Your task to perform on an android device: turn on priority inbox in the gmail app Image 0: 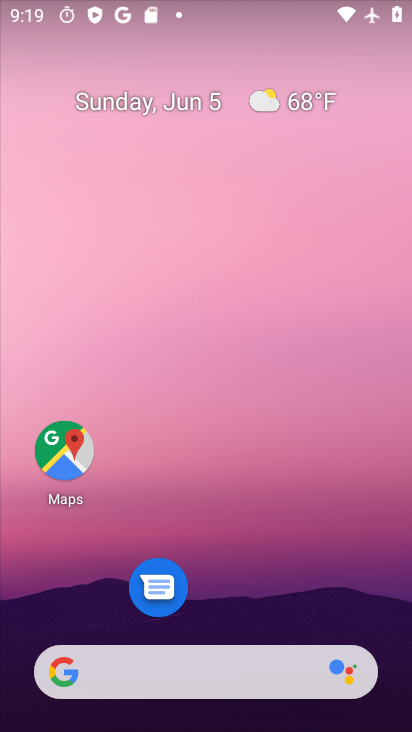
Step 0: drag from (261, 606) to (247, 165)
Your task to perform on an android device: turn on priority inbox in the gmail app Image 1: 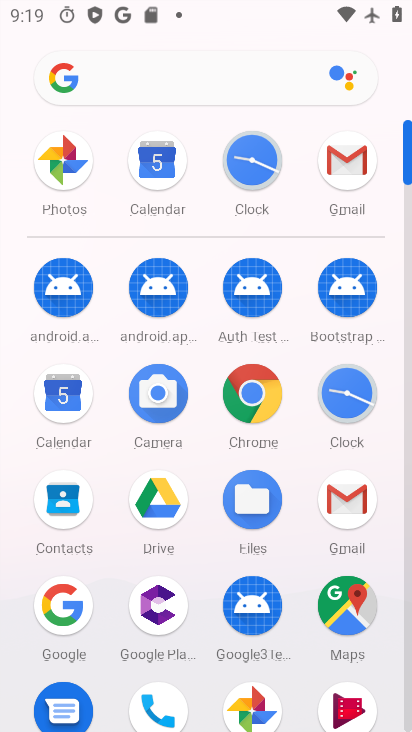
Step 1: click (339, 513)
Your task to perform on an android device: turn on priority inbox in the gmail app Image 2: 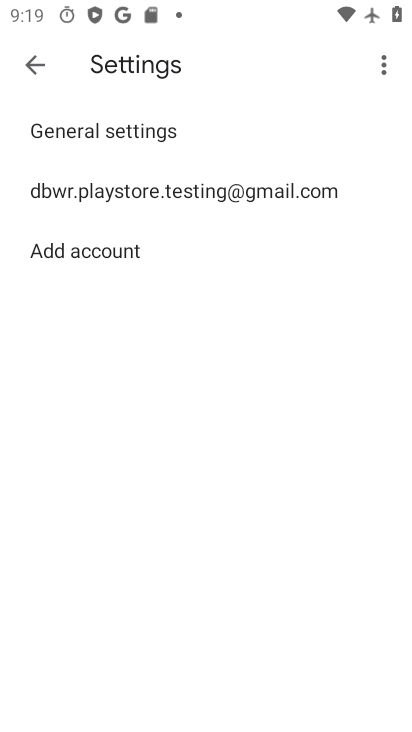
Step 2: click (35, 47)
Your task to perform on an android device: turn on priority inbox in the gmail app Image 3: 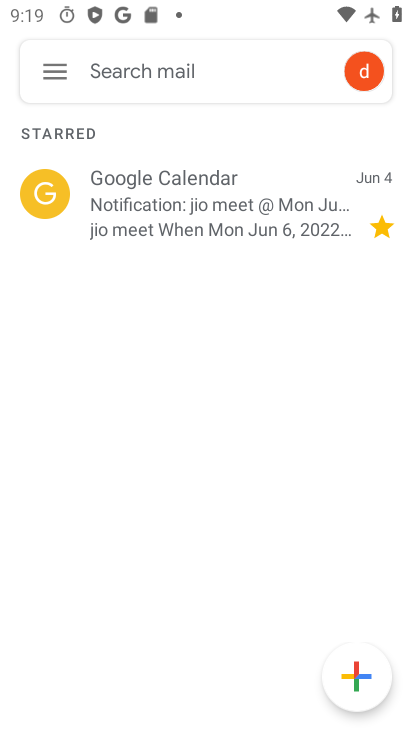
Step 3: click (38, 60)
Your task to perform on an android device: turn on priority inbox in the gmail app Image 4: 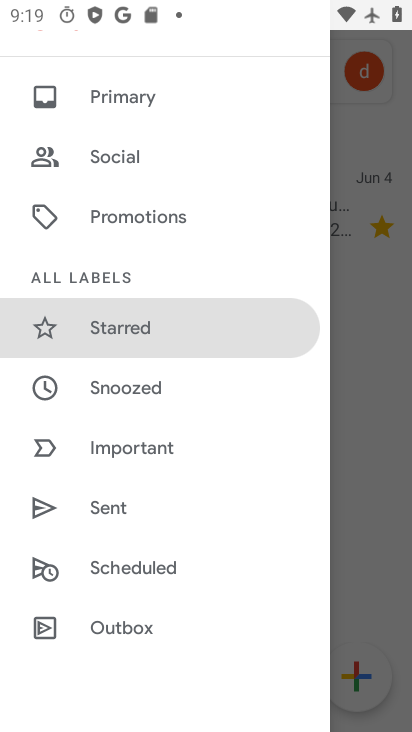
Step 4: drag from (165, 558) to (177, 229)
Your task to perform on an android device: turn on priority inbox in the gmail app Image 5: 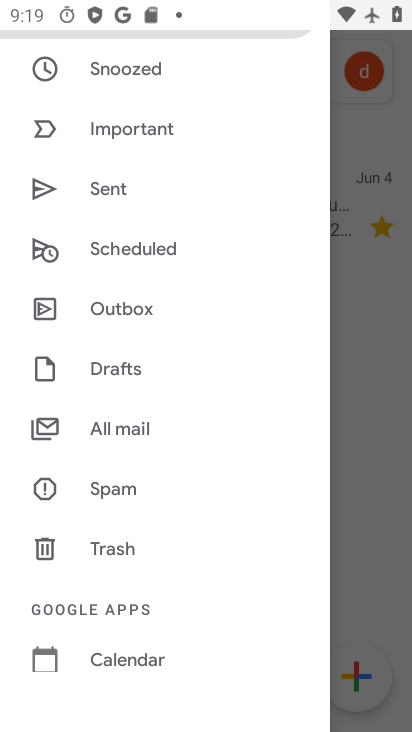
Step 5: drag from (129, 576) to (111, 141)
Your task to perform on an android device: turn on priority inbox in the gmail app Image 6: 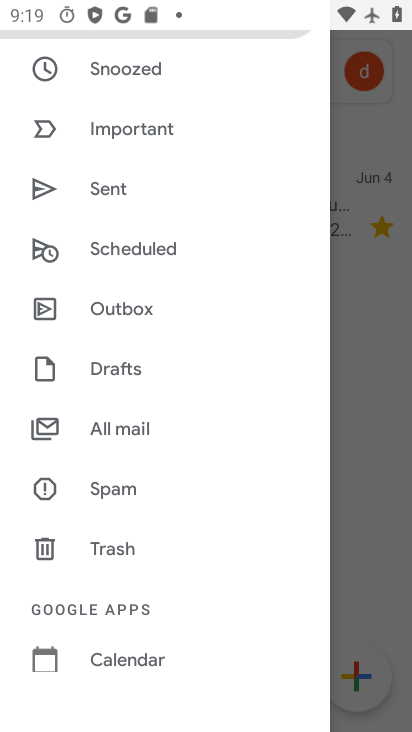
Step 6: drag from (161, 588) to (166, 135)
Your task to perform on an android device: turn on priority inbox in the gmail app Image 7: 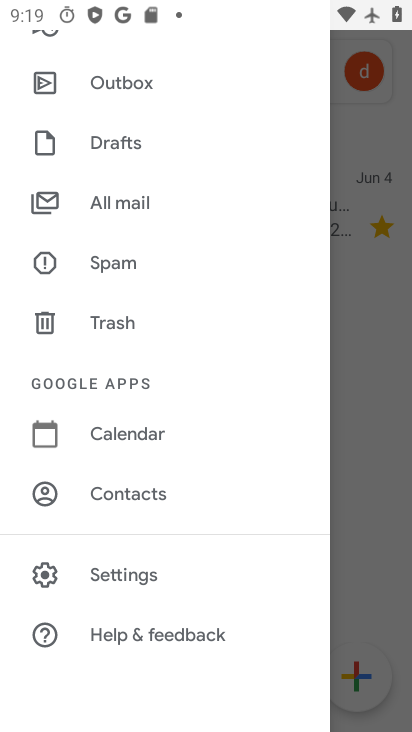
Step 7: click (111, 576)
Your task to perform on an android device: turn on priority inbox in the gmail app Image 8: 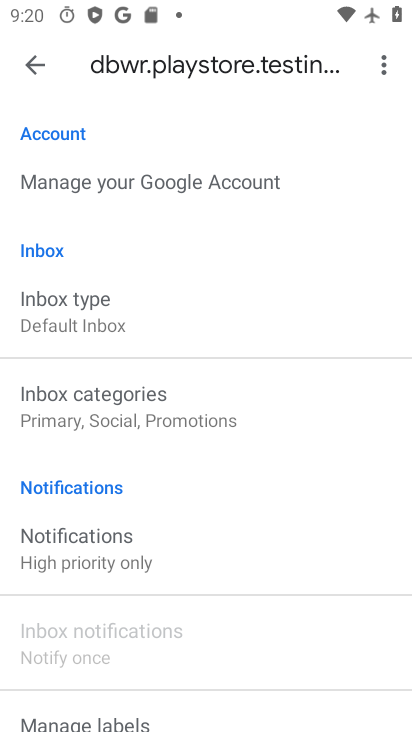
Step 8: drag from (153, 229) to (241, 512)
Your task to perform on an android device: turn on priority inbox in the gmail app Image 9: 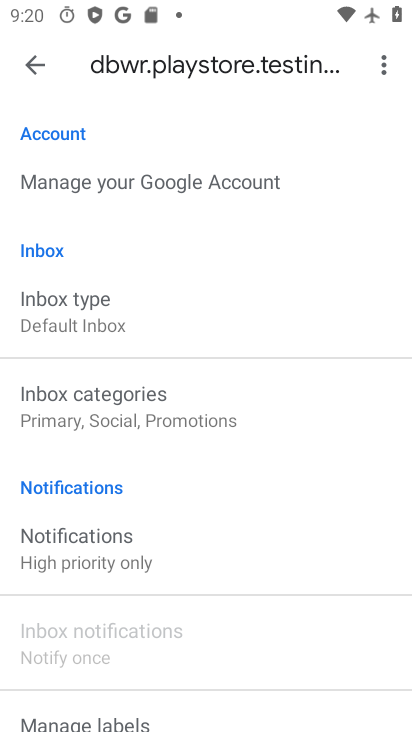
Step 9: drag from (102, 645) to (104, 598)
Your task to perform on an android device: turn on priority inbox in the gmail app Image 10: 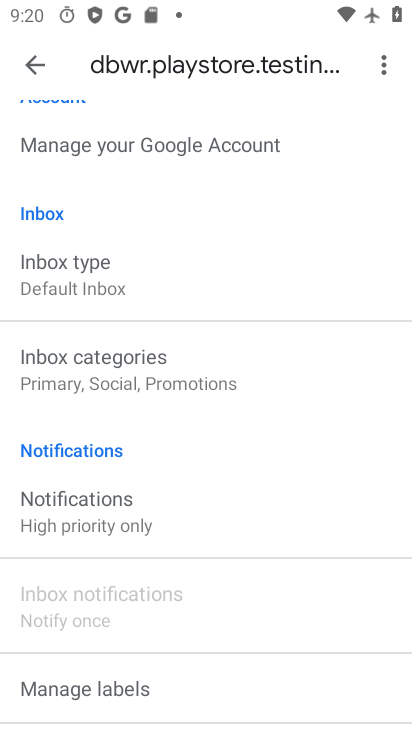
Step 10: click (102, 260)
Your task to perform on an android device: turn on priority inbox in the gmail app Image 11: 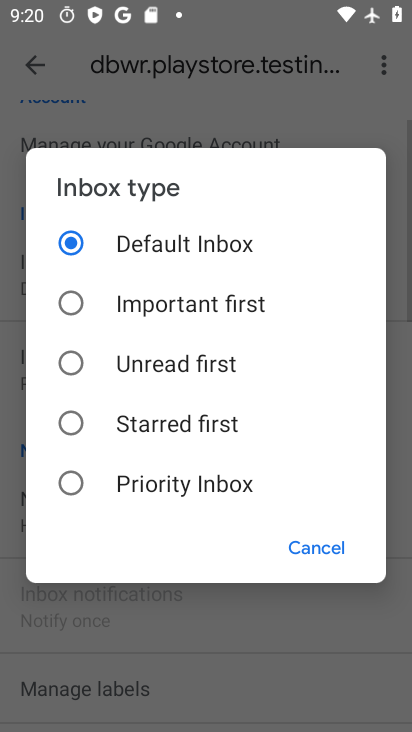
Step 11: click (175, 490)
Your task to perform on an android device: turn on priority inbox in the gmail app Image 12: 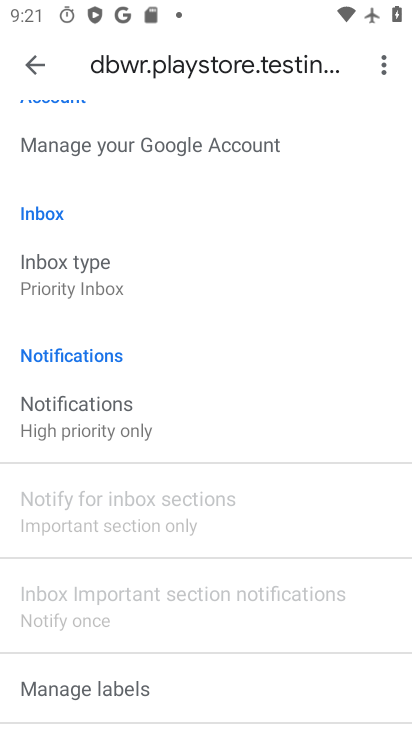
Step 12: task complete